Your task to perform on an android device: turn on wifi Image 0: 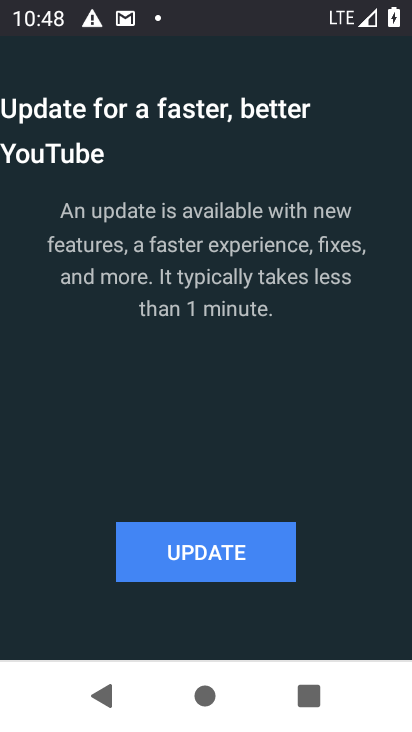
Step 0: press back button
Your task to perform on an android device: turn on wifi Image 1: 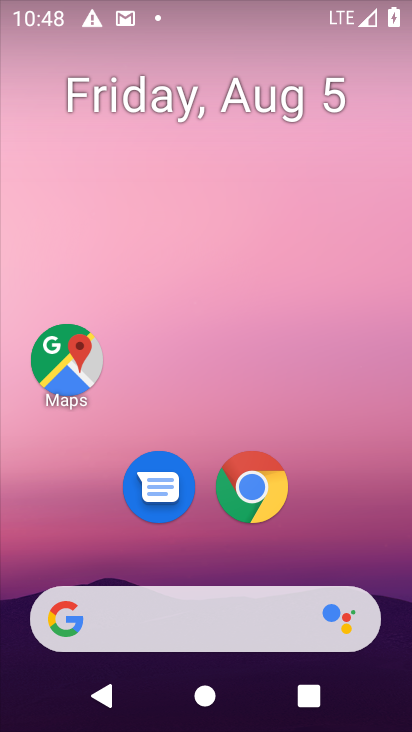
Step 1: drag from (101, 11) to (175, 498)
Your task to perform on an android device: turn on wifi Image 2: 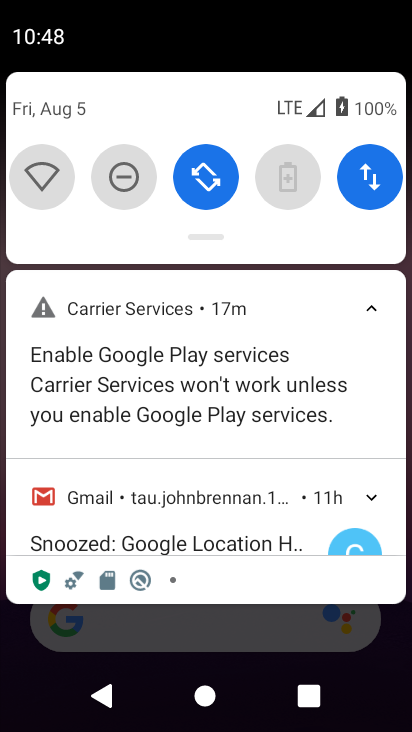
Step 2: click (45, 186)
Your task to perform on an android device: turn on wifi Image 3: 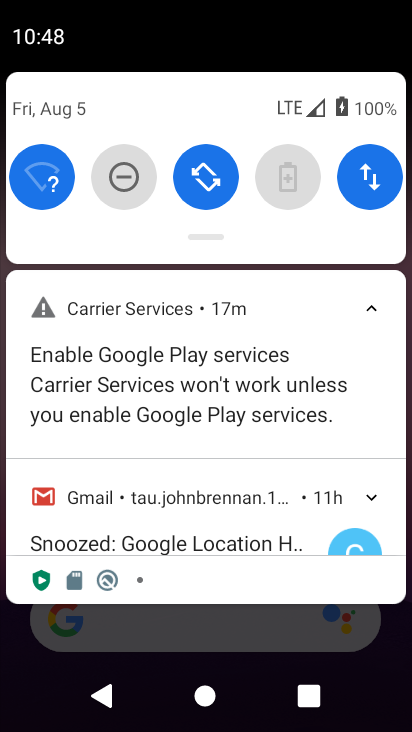
Step 3: task complete